Your task to perform on an android device: toggle pop-ups in chrome Image 0: 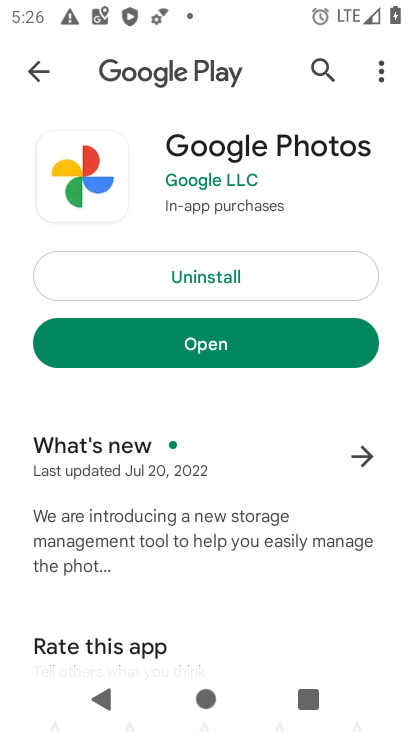
Step 0: press home button
Your task to perform on an android device: toggle pop-ups in chrome Image 1: 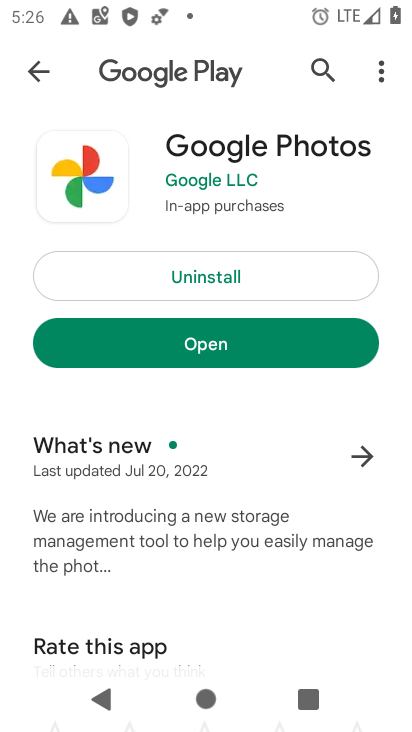
Step 1: press home button
Your task to perform on an android device: toggle pop-ups in chrome Image 2: 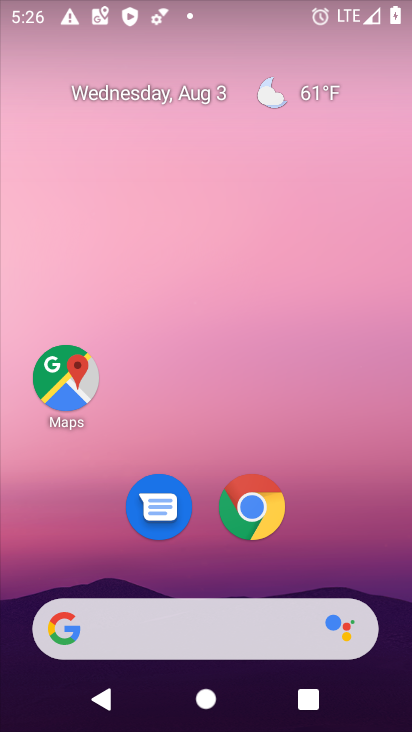
Step 2: drag from (318, 552) to (324, 26)
Your task to perform on an android device: toggle pop-ups in chrome Image 3: 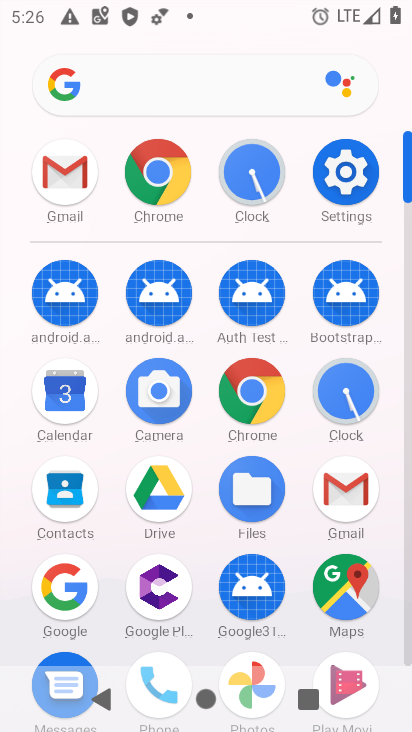
Step 3: click (253, 385)
Your task to perform on an android device: toggle pop-ups in chrome Image 4: 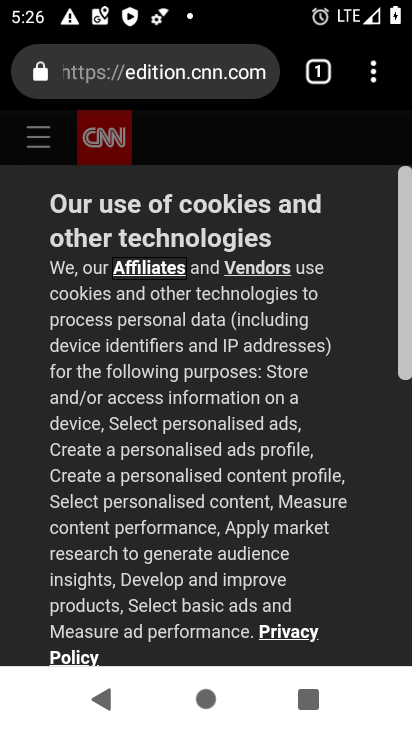
Step 4: click (368, 70)
Your task to perform on an android device: toggle pop-ups in chrome Image 5: 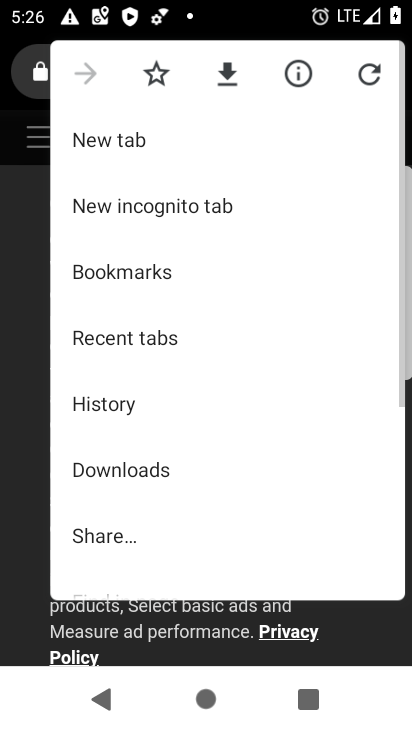
Step 5: drag from (159, 551) to (249, 137)
Your task to perform on an android device: toggle pop-ups in chrome Image 6: 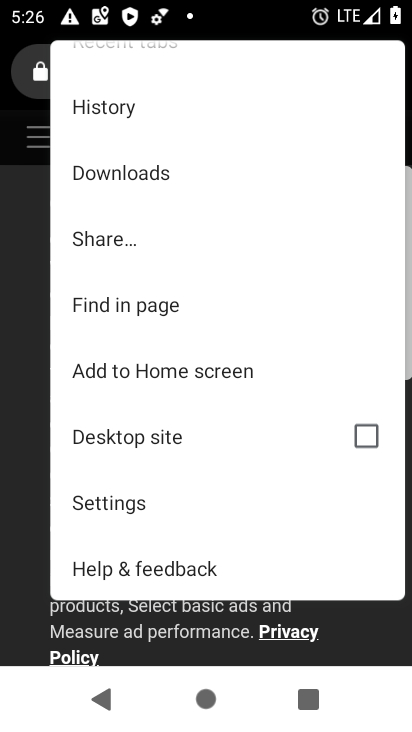
Step 6: click (117, 501)
Your task to perform on an android device: toggle pop-ups in chrome Image 7: 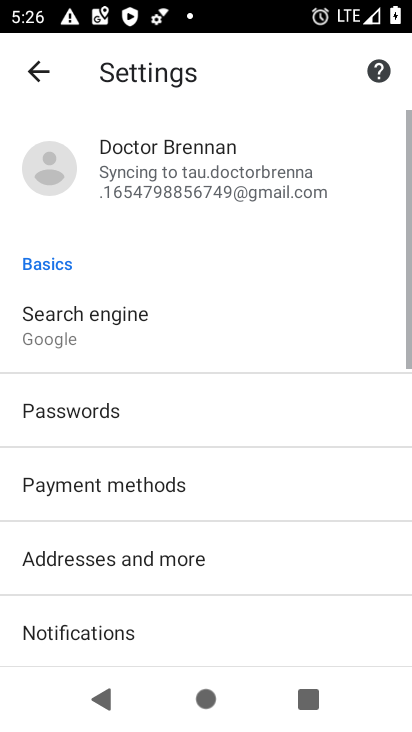
Step 7: drag from (231, 578) to (305, 138)
Your task to perform on an android device: toggle pop-ups in chrome Image 8: 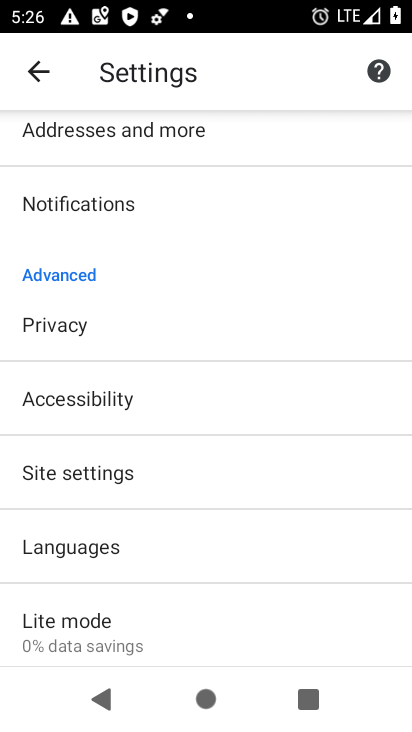
Step 8: click (123, 488)
Your task to perform on an android device: toggle pop-ups in chrome Image 9: 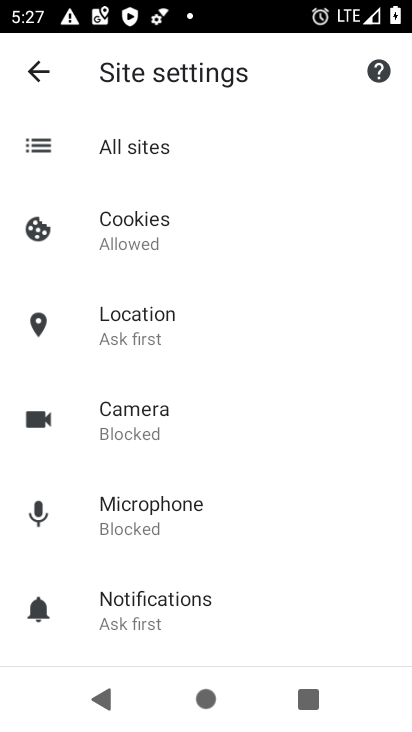
Step 9: drag from (200, 543) to (304, 126)
Your task to perform on an android device: toggle pop-ups in chrome Image 10: 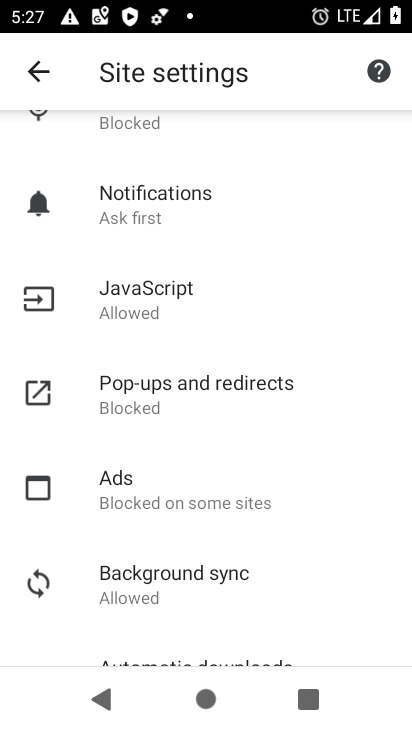
Step 10: click (153, 381)
Your task to perform on an android device: toggle pop-ups in chrome Image 11: 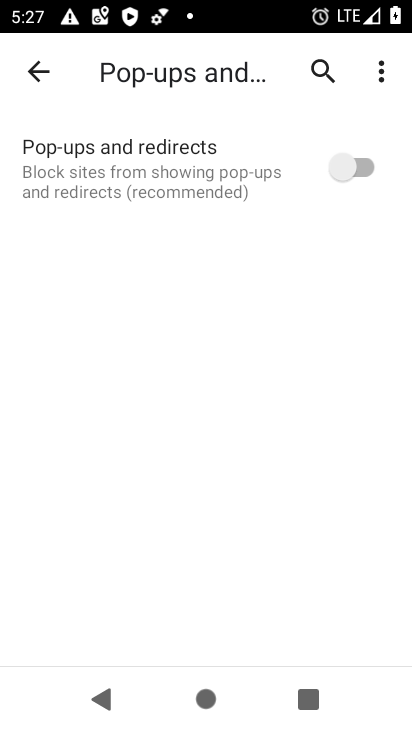
Step 11: click (359, 164)
Your task to perform on an android device: toggle pop-ups in chrome Image 12: 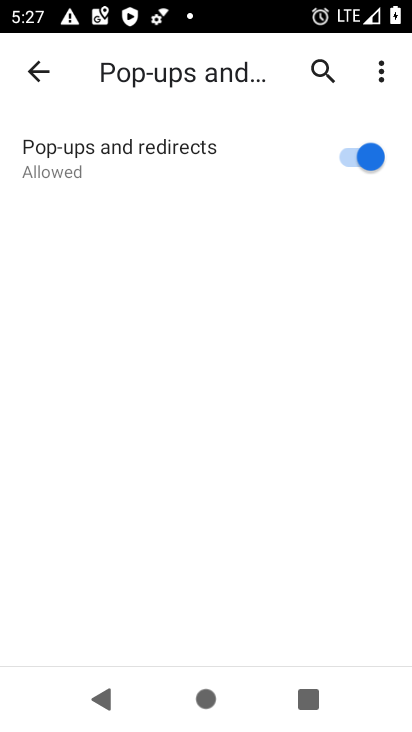
Step 12: task complete